Your task to perform on an android device: install app "YouTube Kids" Image 0: 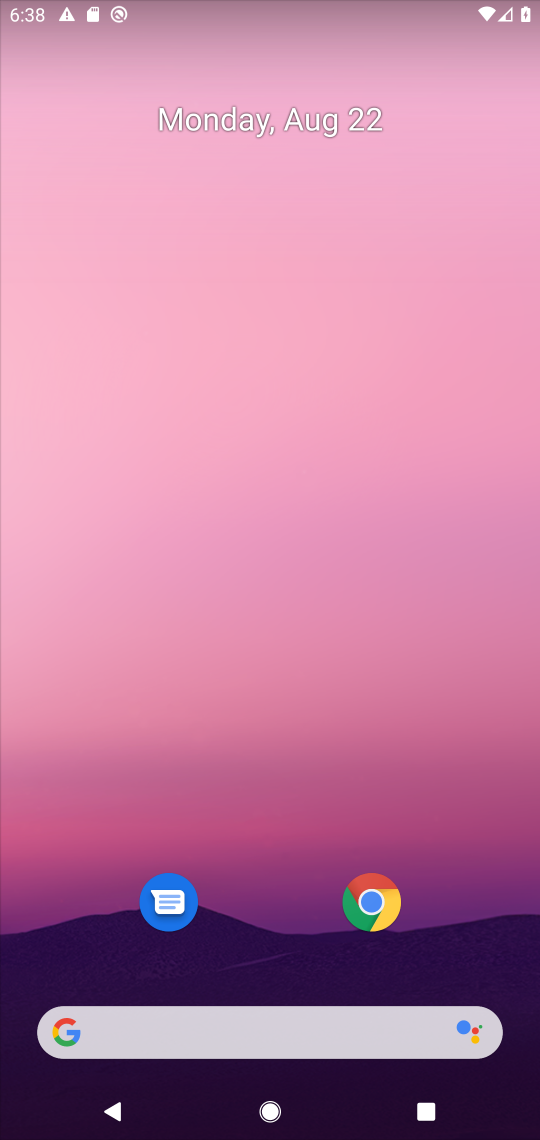
Step 0: drag from (215, 253) to (211, 72)
Your task to perform on an android device: install app "YouTube Kids" Image 1: 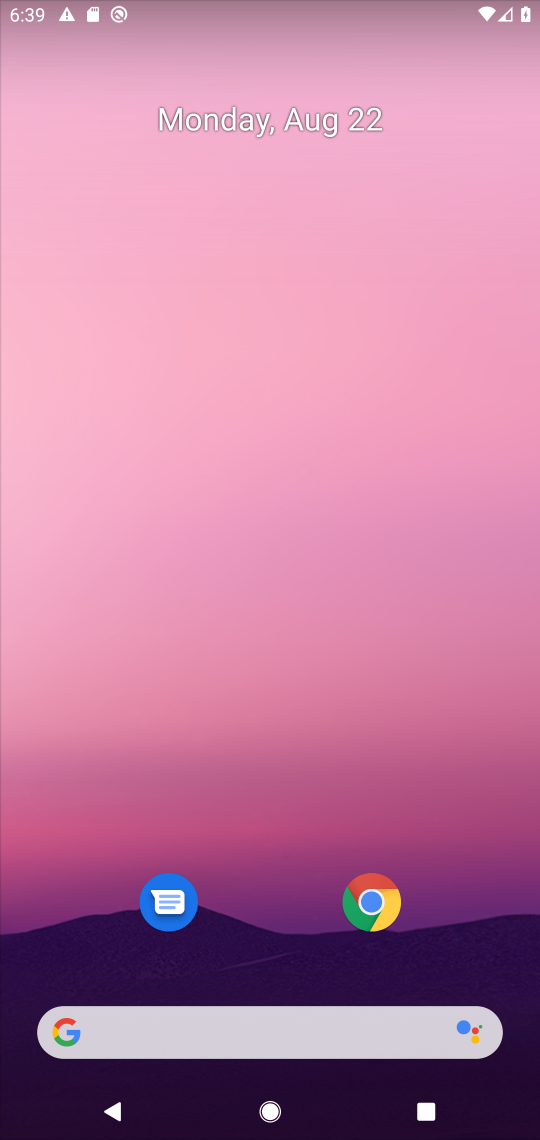
Step 1: drag from (250, 904) to (231, 268)
Your task to perform on an android device: install app "YouTube Kids" Image 2: 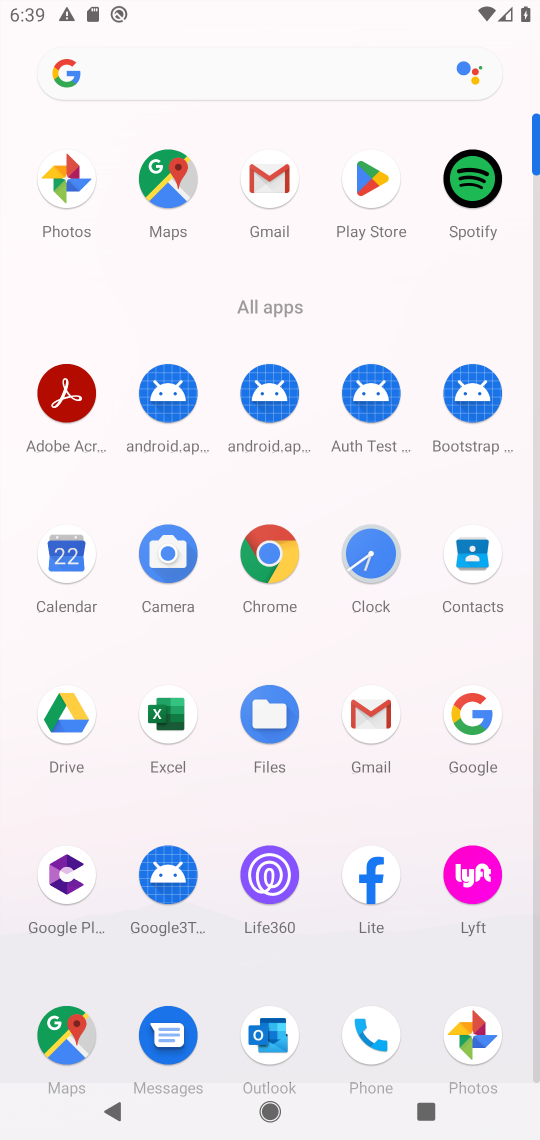
Step 2: click (370, 191)
Your task to perform on an android device: install app "YouTube Kids" Image 3: 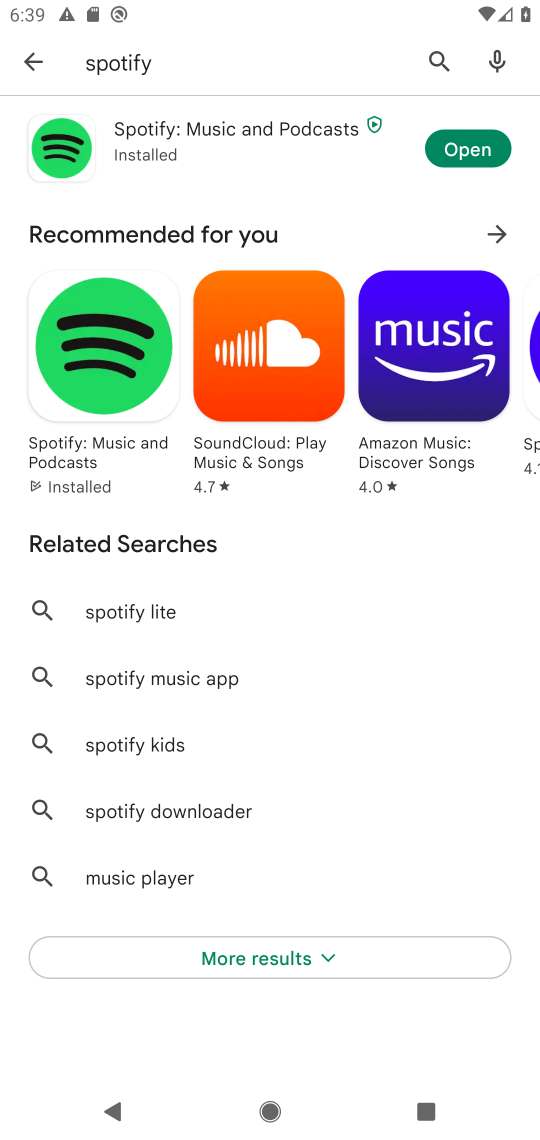
Step 3: click (31, 60)
Your task to perform on an android device: install app "YouTube Kids" Image 4: 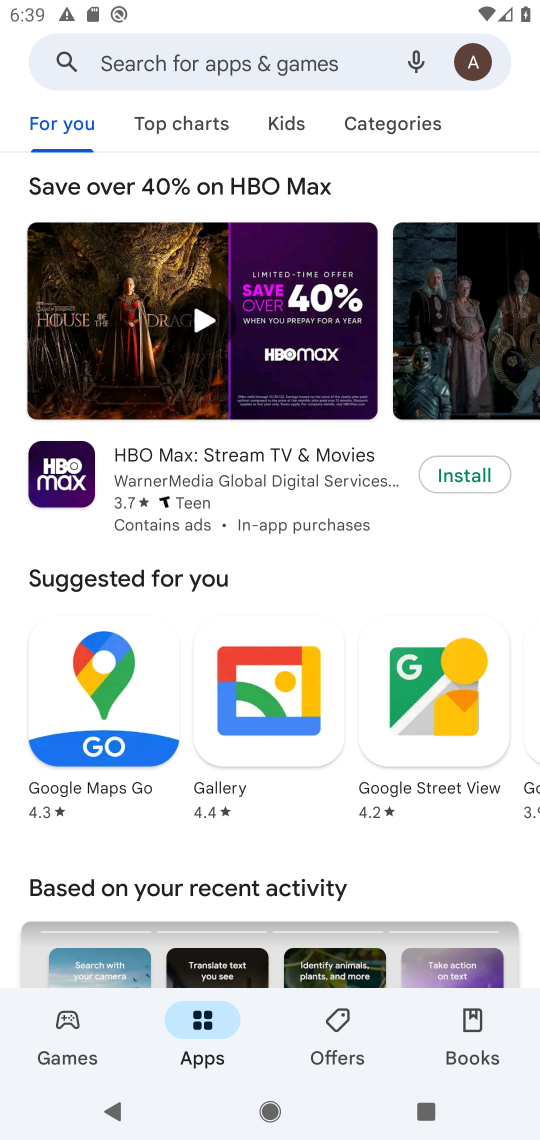
Step 4: click (159, 60)
Your task to perform on an android device: install app "YouTube Kids" Image 5: 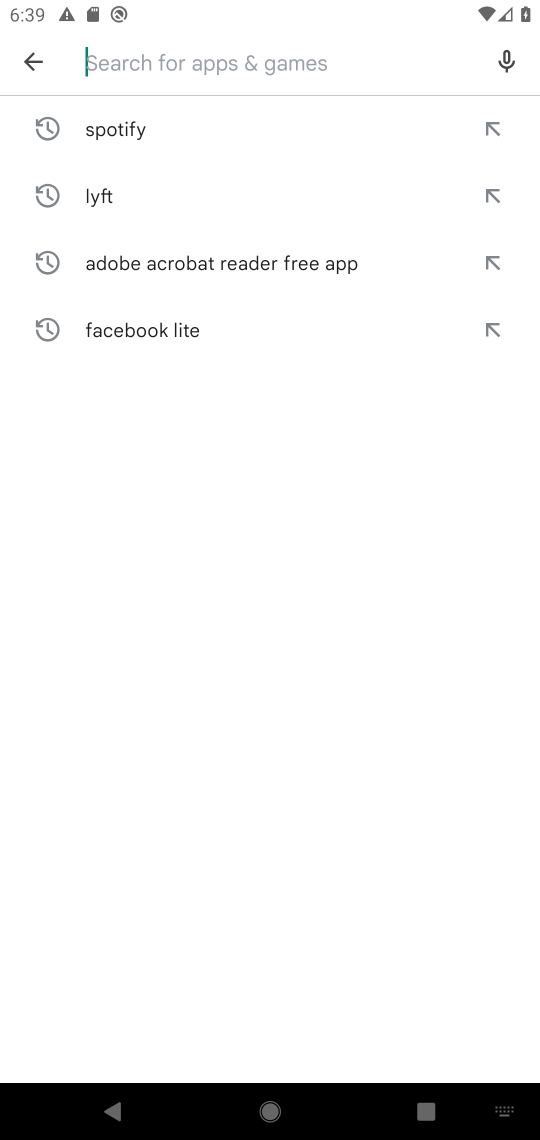
Step 5: type "YouTube Kids"
Your task to perform on an android device: install app "YouTube Kids" Image 6: 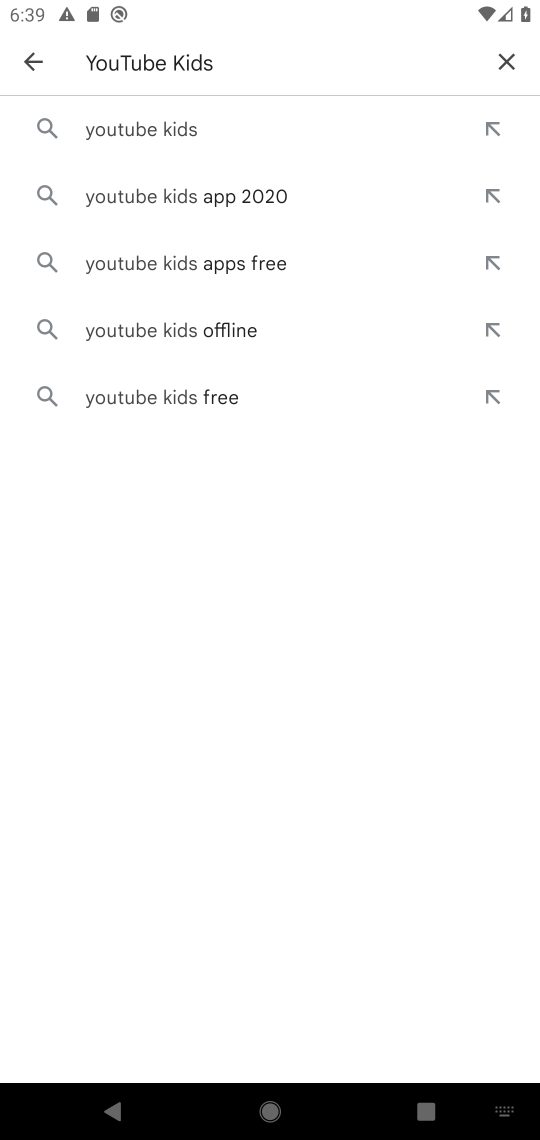
Step 6: click (144, 125)
Your task to perform on an android device: install app "YouTube Kids" Image 7: 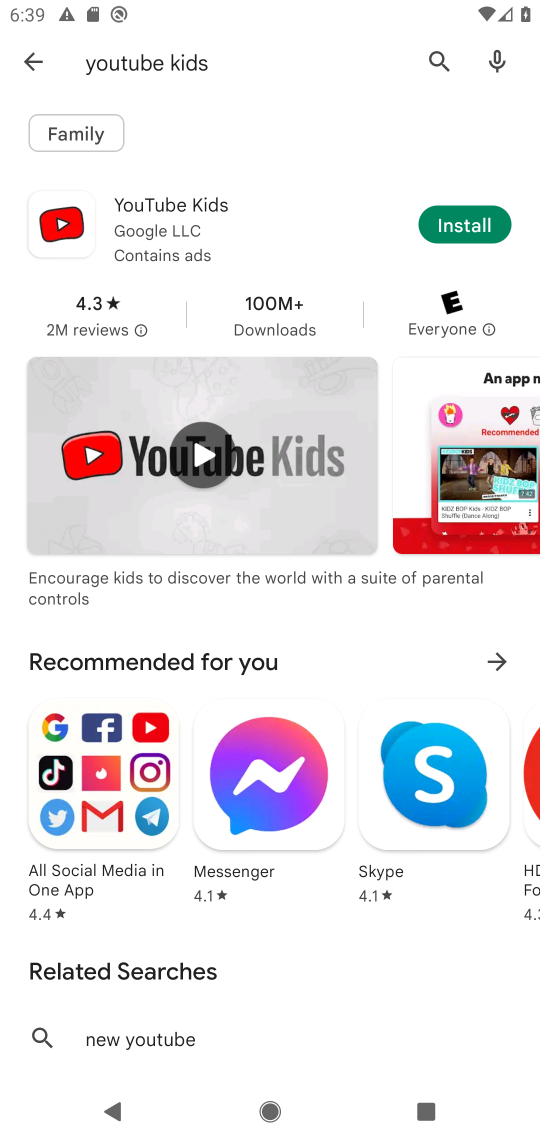
Step 7: click (458, 237)
Your task to perform on an android device: install app "YouTube Kids" Image 8: 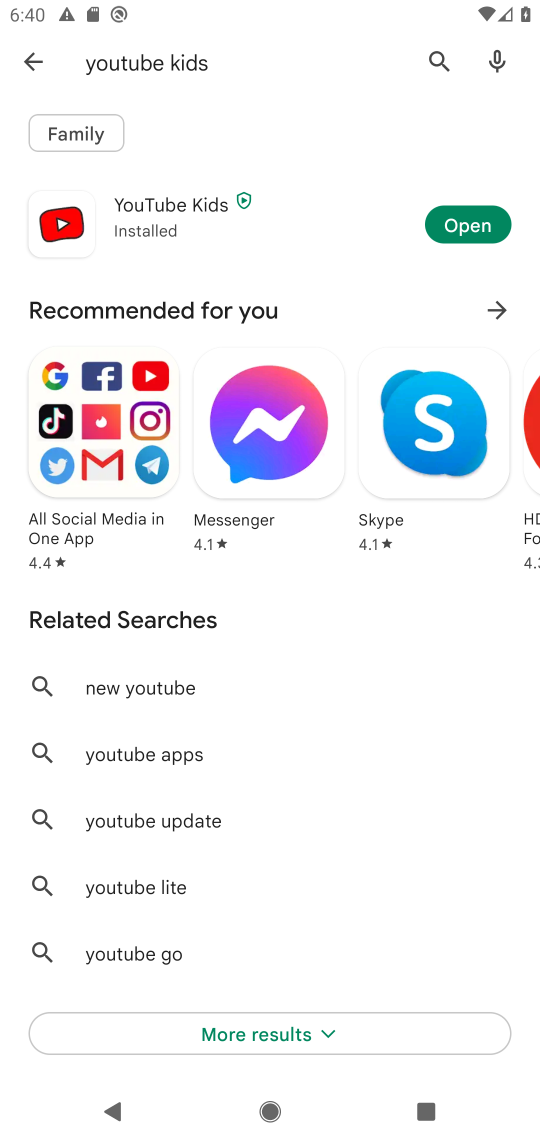
Step 8: click (476, 233)
Your task to perform on an android device: install app "YouTube Kids" Image 9: 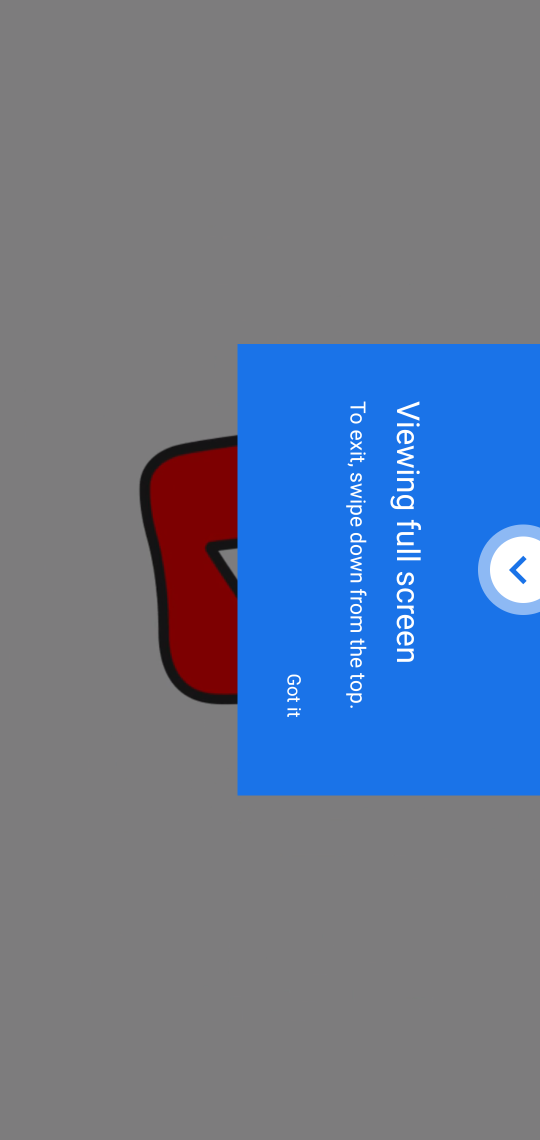
Step 9: task complete